Your task to perform on an android device: turn off wifi Image 0: 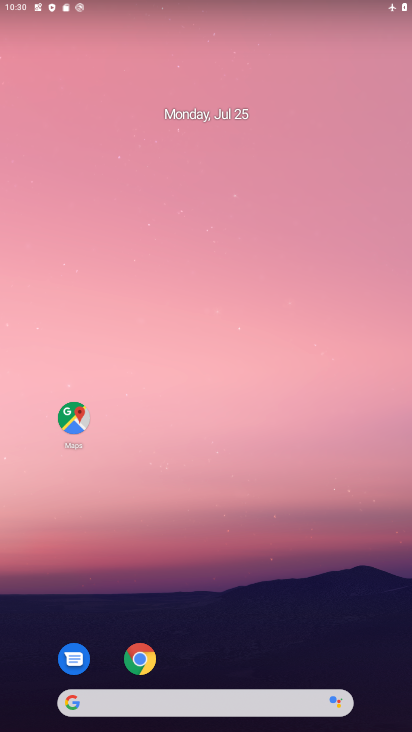
Step 0: drag from (212, 687) to (227, 112)
Your task to perform on an android device: turn off wifi Image 1: 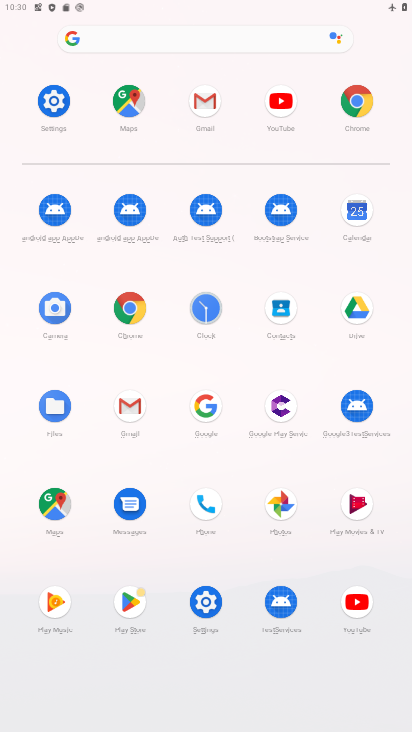
Step 1: click (202, 615)
Your task to perform on an android device: turn off wifi Image 2: 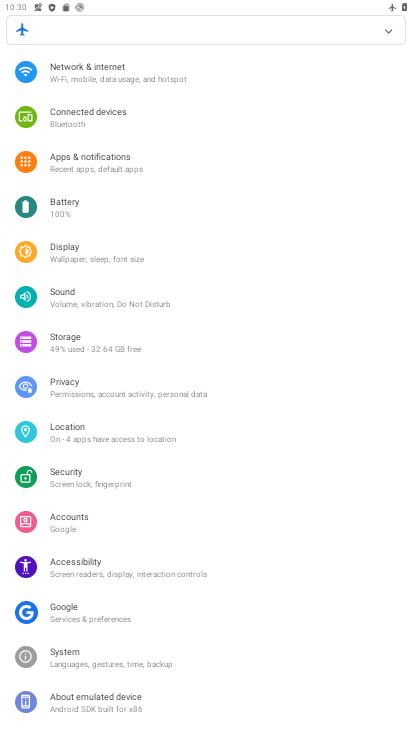
Step 2: click (79, 83)
Your task to perform on an android device: turn off wifi Image 3: 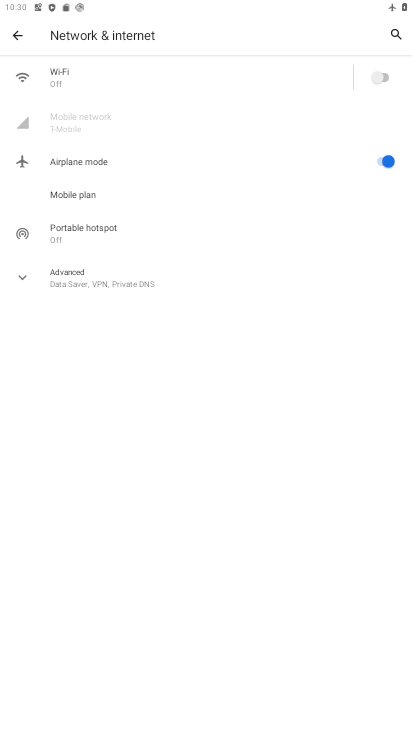
Step 3: click (192, 79)
Your task to perform on an android device: turn off wifi Image 4: 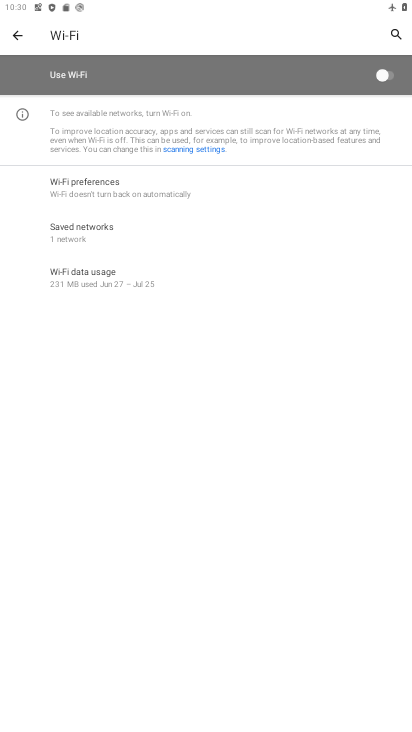
Step 4: task complete